Your task to perform on an android device: Open the phone app and click the voicemail tab. Image 0: 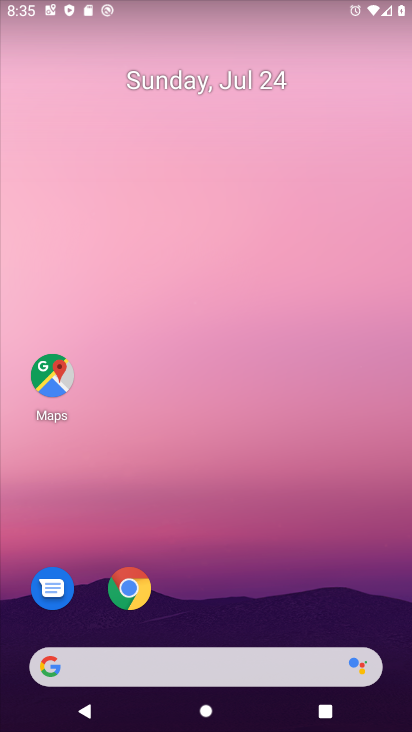
Step 0: drag from (319, 488) to (253, 0)
Your task to perform on an android device: Open the phone app and click the voicemail tab. Image 1: 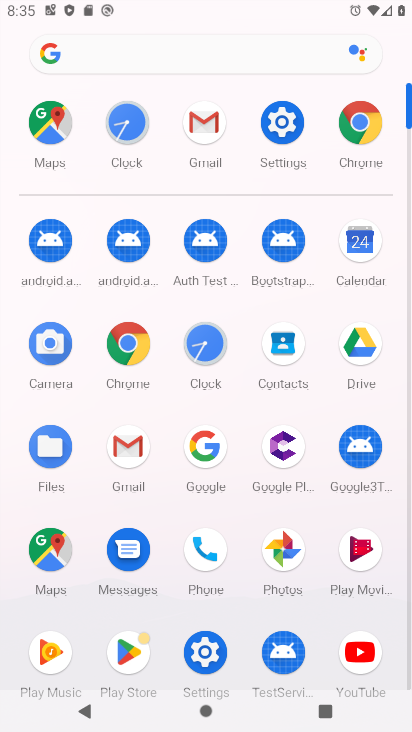
Step 1: click (199, 556)
Your task to perform on an android device: Open the phone app and click the voicemail tab. Image 2: 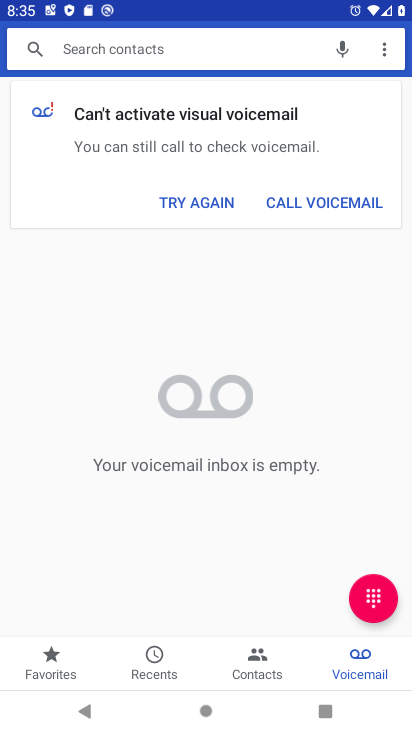
Step 2: task complete